Your task to perform on an android device: Open the calendar app, open the side menu, and click the "Day" option Image 0: 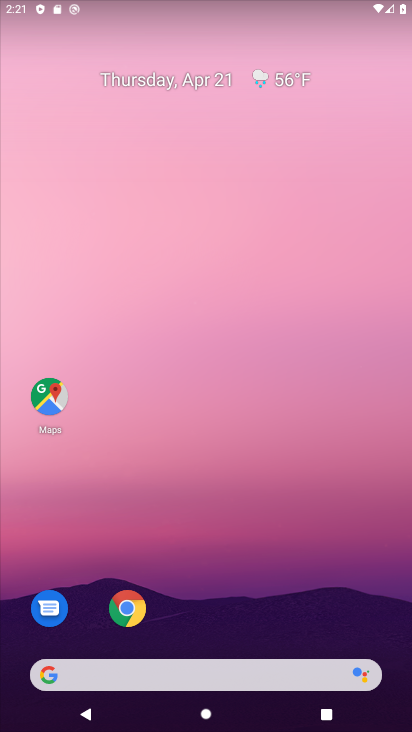
Step 0: drag from (347, 299) to (319, 116)
Your task to perform on an android device: Open the calendar app, open the side menu, and click the "Day" option Image 1: 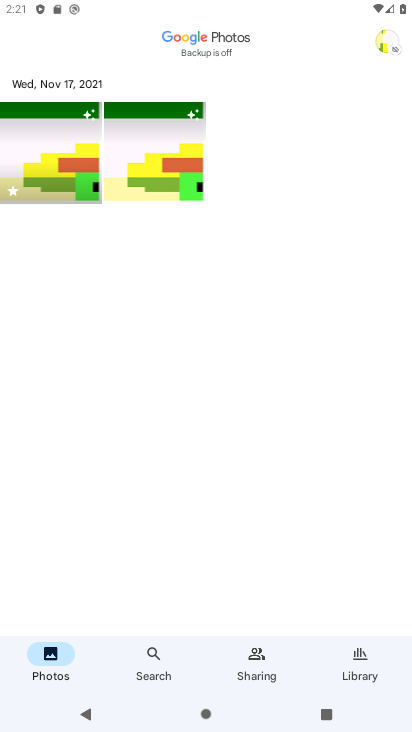
Step 1: press home button
Your task to perform on an android device: Open the calendar app, open the side menu, and click the "Day" option Image 2: 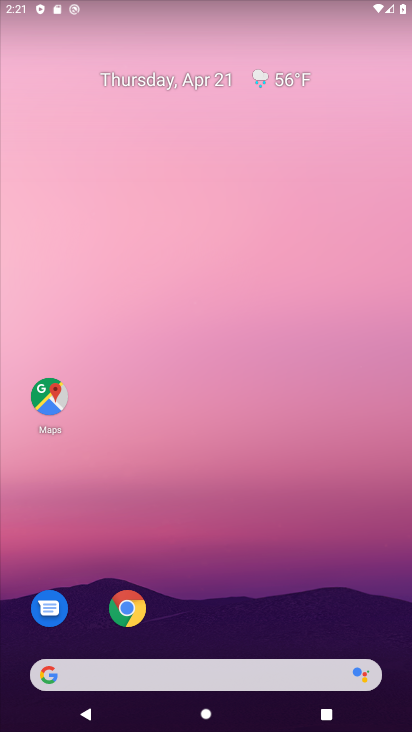
Step 2: drag from (162, 566) to (175, 105)
Your task to perform on an android device: Open the calendar app, open the side menu, and click the "Day" option Image 3: 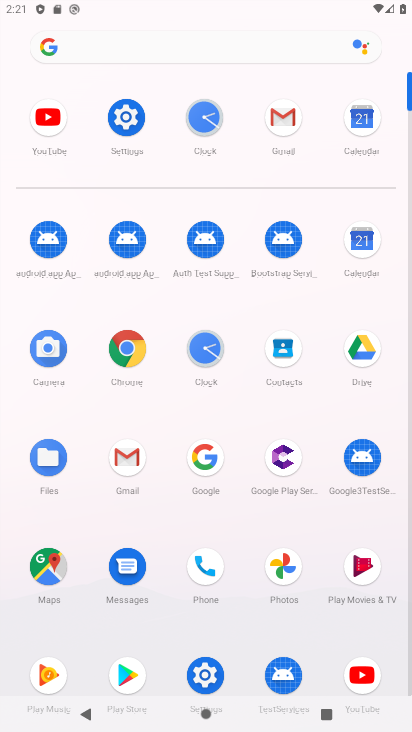
Step 3: click (364, 257)
Your task to perform on an android device: Open the calendar app, open the side menu, and click the "Day" option Image 4: 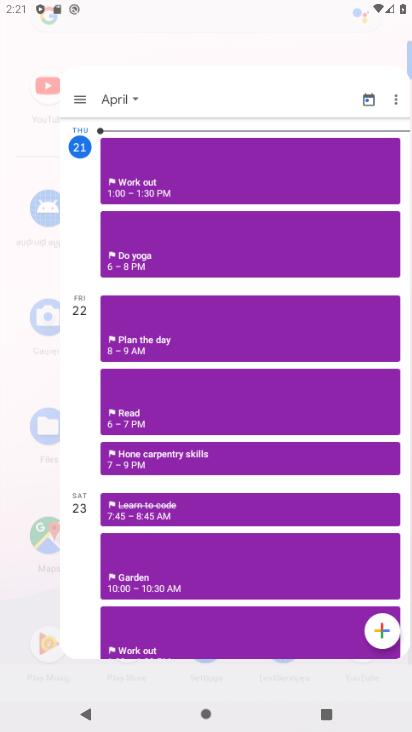
Step 4: click (360, 249)
Your task to perform on an android device: Open the calendar app, open the side menu, and click the "Day" option Image 5: 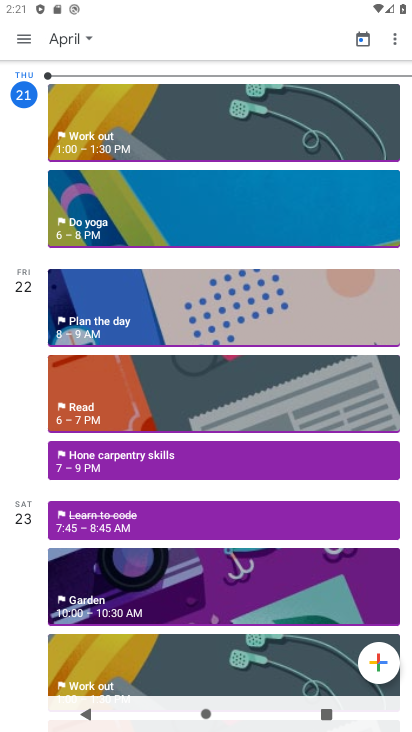
Step 5: click (19, 40)
Your task to perform on an android device: Open the calendar app, open the side menu, and click the "Day" option Image 6: 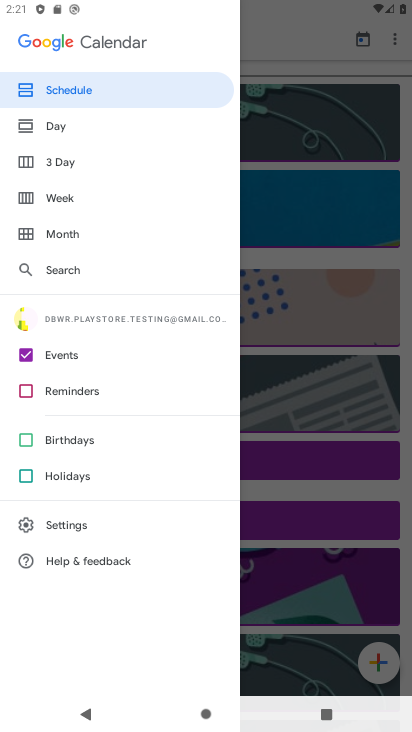
Step 6: click (62, 120)
Your task to perform on an android device: Open the calendar app, open the side menu, and click the "Day" option Image 7: 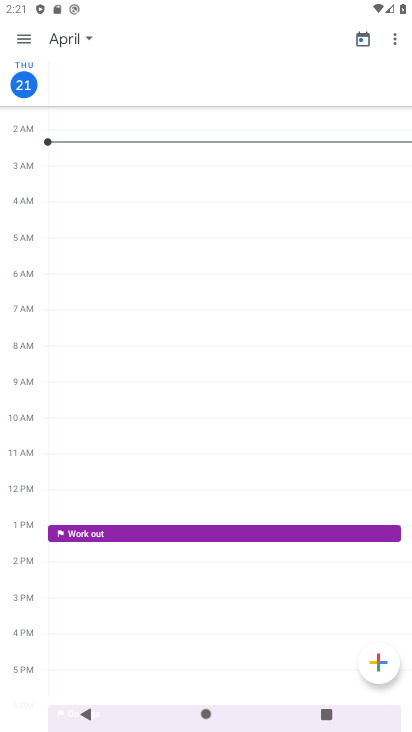
Step 7: task complete